Your task to perform on an android device: change alarm snooze length Image 0: 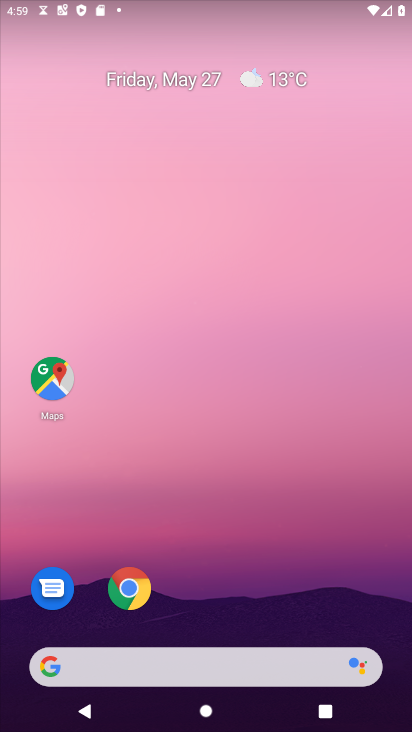
Step 0: drag from (245, 577) to (320, 33)
Your task to perform on an android device: change alarm snooze length Image 1: 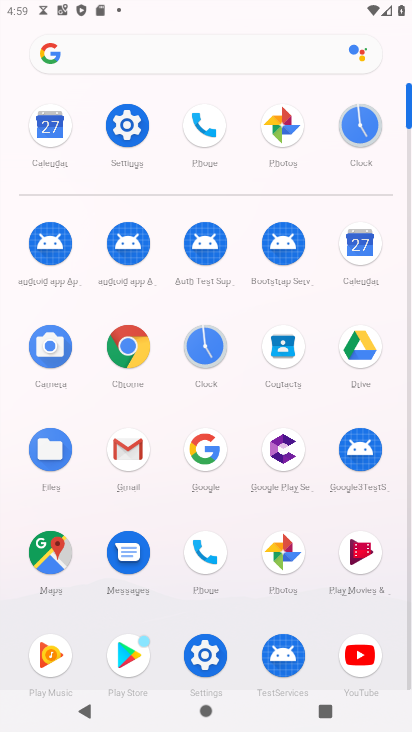
Step 1: click (213, 354)
Your task to perform on an android device: change alarm snooze length Image 2: 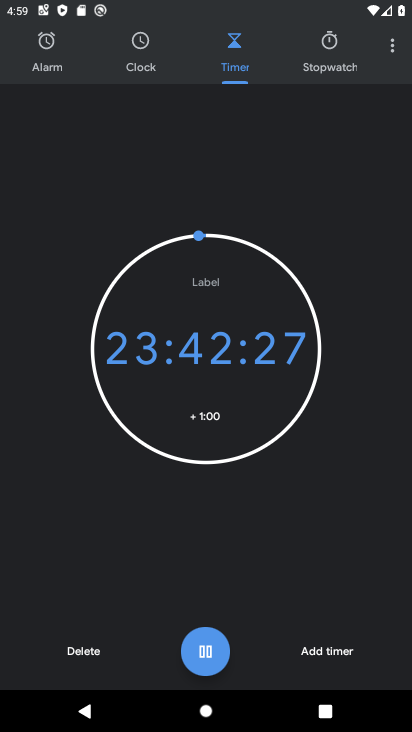
Step 2: click (389, 43)
Your task to perform on an android device: change alarm snooze length Image 3: 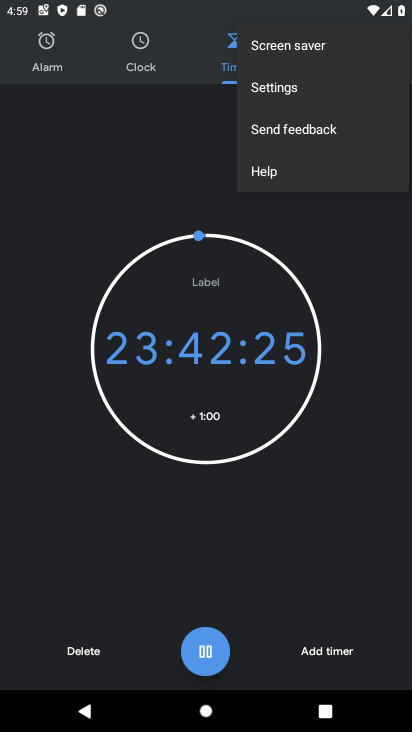
Step 3: click (281, 89)
Your task to perform on an android device: change alarm snooze length Image 4: 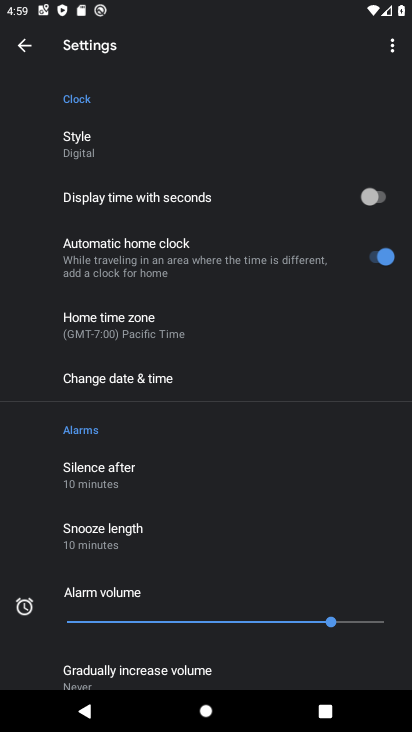
Step 4: click (155, 535)
Your task to perform on an android device: change alarm snooze length Image 5: 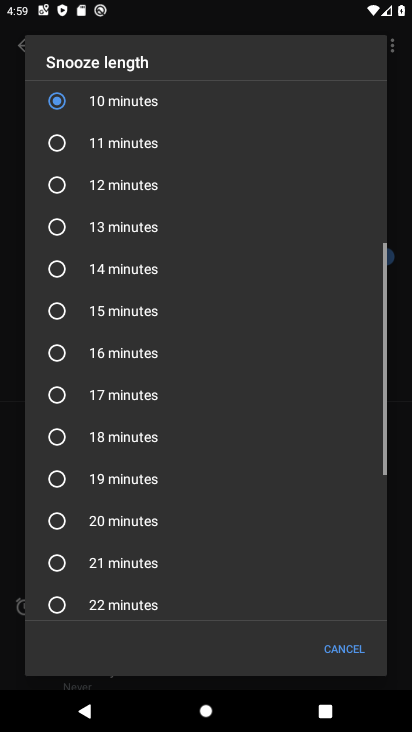
Step 5: click (60, 139)
Your task to perform on an android device: change alarm snooze length Image 6: 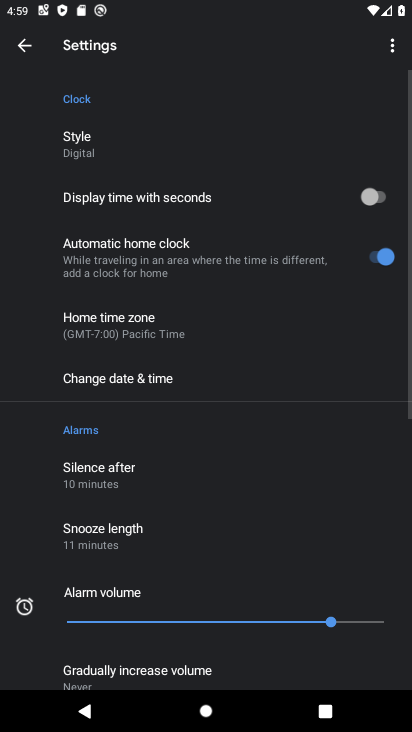
Step 6: task complete